Your task to perform on an android device: toggle priority inbox in the gmail app Image 0: 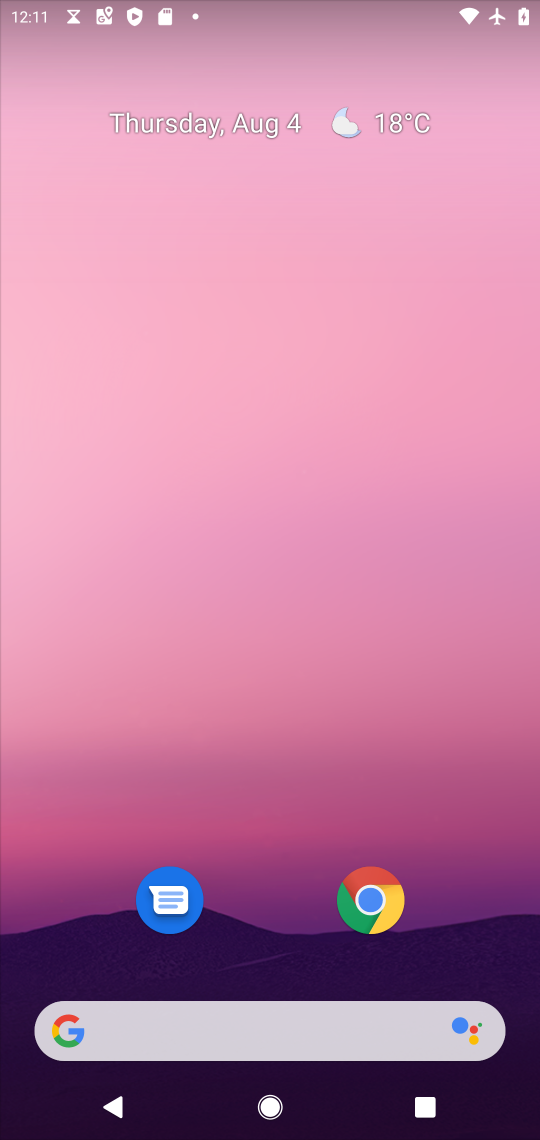
Step 0: drag from (341, 605) to (392, 135)
Your task to perform on an android device: toggle priority inbox in the gmail app Image 1: 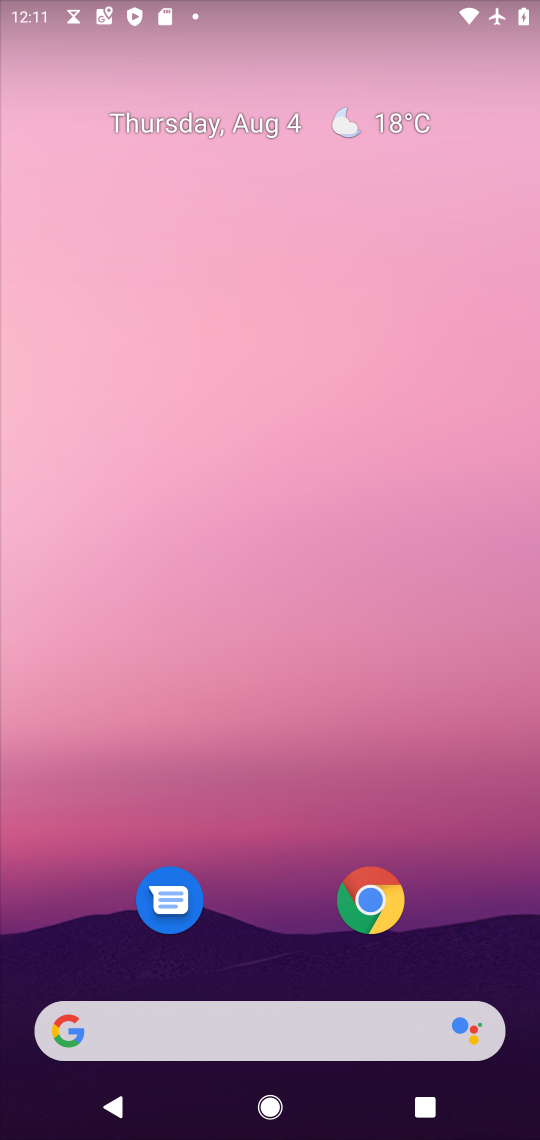
Step 1: drag from (285, 984) to (363, 215)
Your task to perform on an android device: toggle priority inbox in the gmail app Image 2: 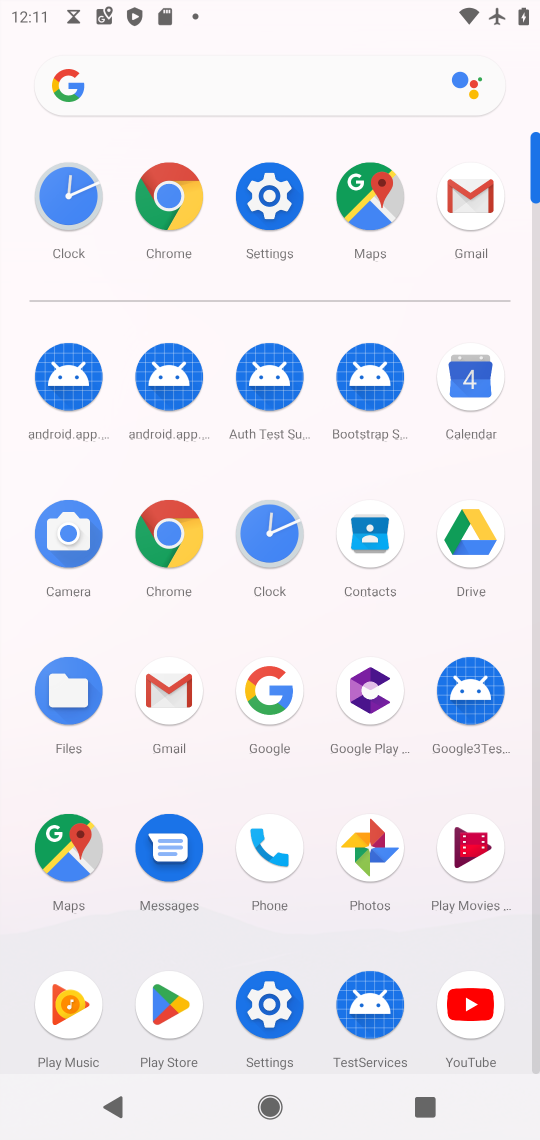
Step 2: click (465, 190)
Your task to perform on an android device: toggle priority inbox in the gmail app Image 3: 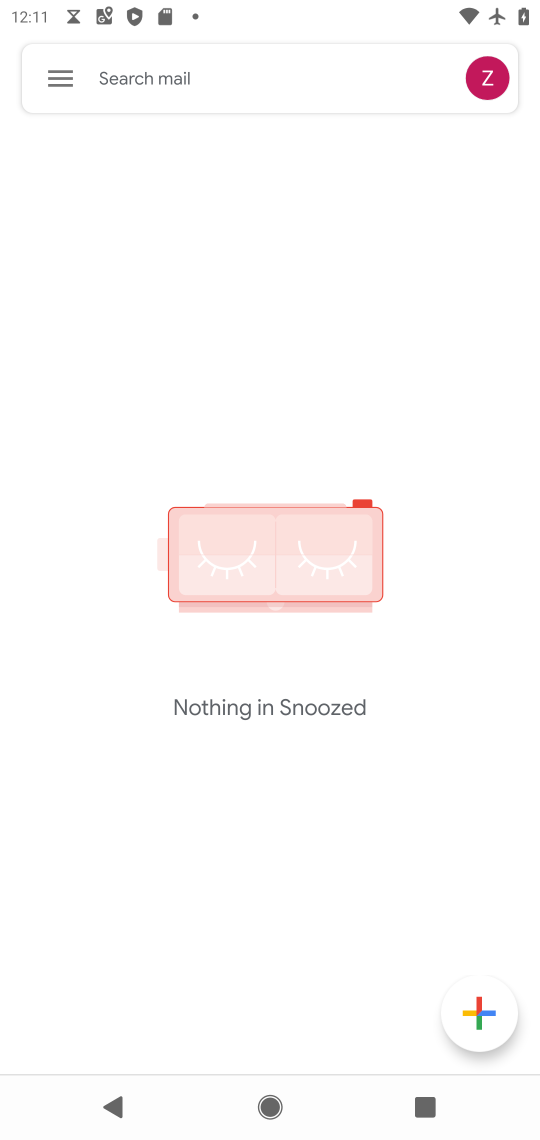
Step 3: click (66, 72)
Your task to perform on an android device: toggle priority inbox in the gmail app Image 4: 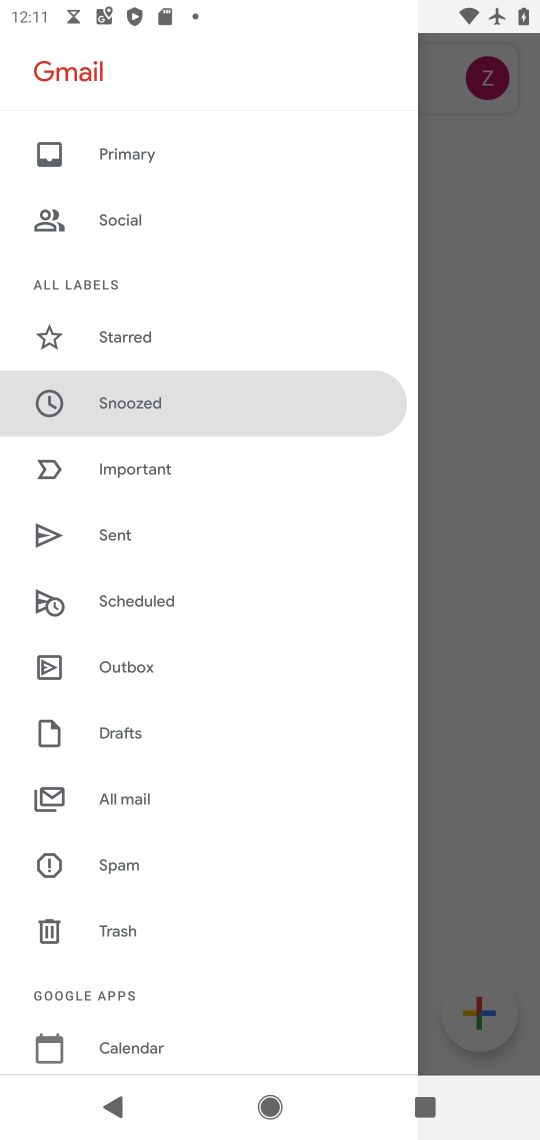
Step 4: drag from (240, 960) to (276, 234)
Your task to perform on an android device: toggle priority inbox in the gmail app Image 5: 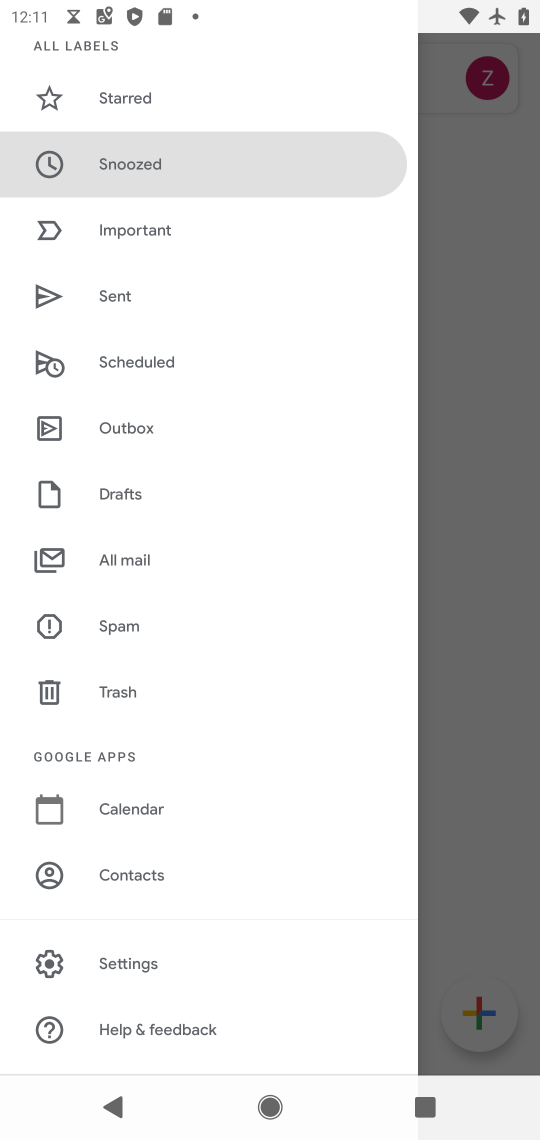
Step 5: click (139, 964)
Your task to perform on an android device: toggle priority inbox in the gmail app Image 6: 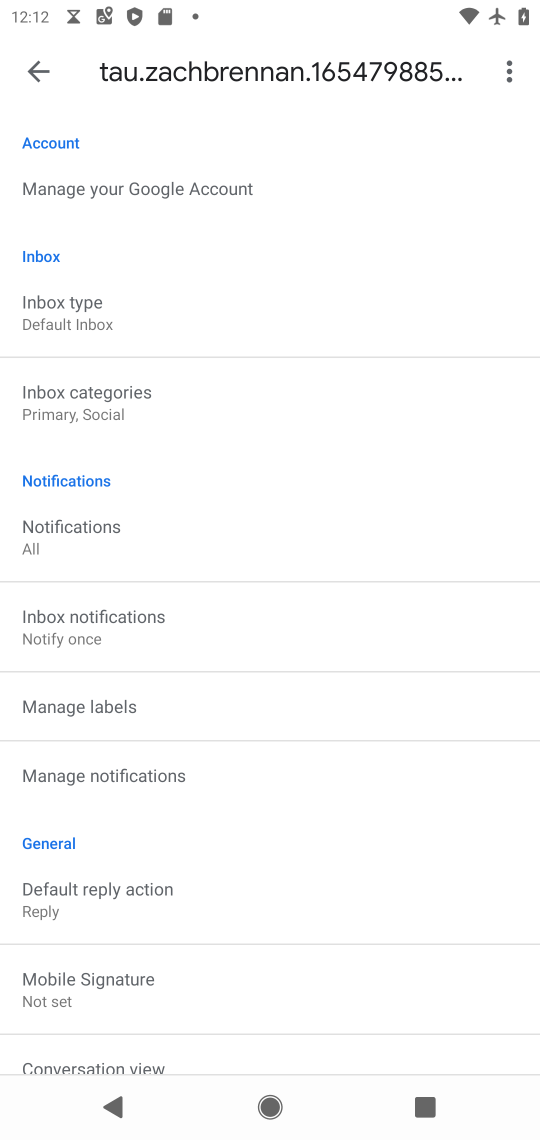
Step 6: click (48, 312)
Your task to perform on an android device: toggle priority inbox in the gmail app Image 7: 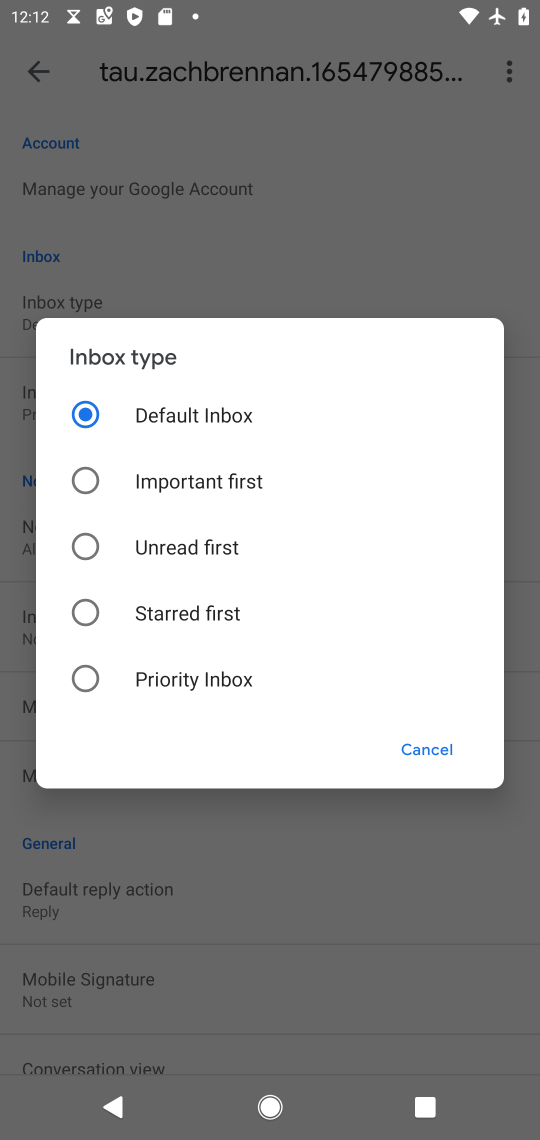
Step 7: click (80, 683)
Your task to perform on an android device: toggle priority inbox in the gmail app Image 8: 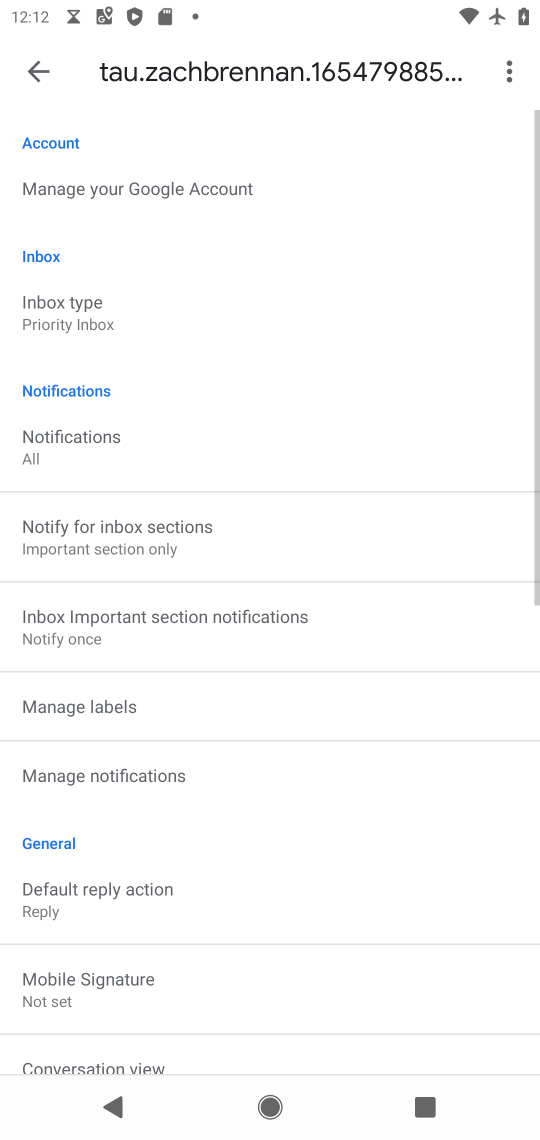
Step 8: task complete